Your task to perform on an android device: Open Google Chrome and open the bookmarks view Image 0: 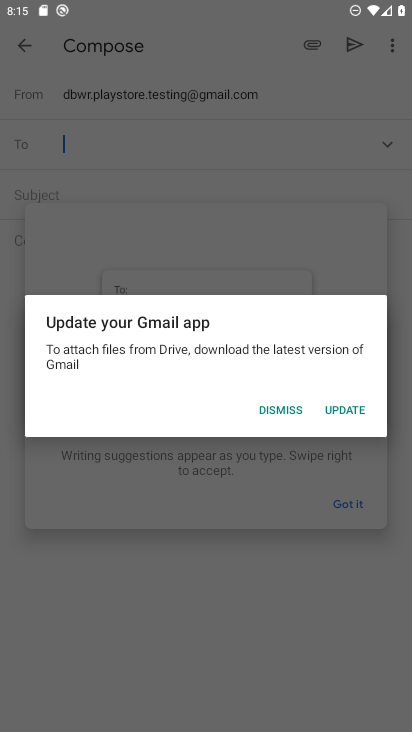
Step 0: press home button
Your task to perform on an android device: Open Google Chrome and open the bookmarks view Image 1: 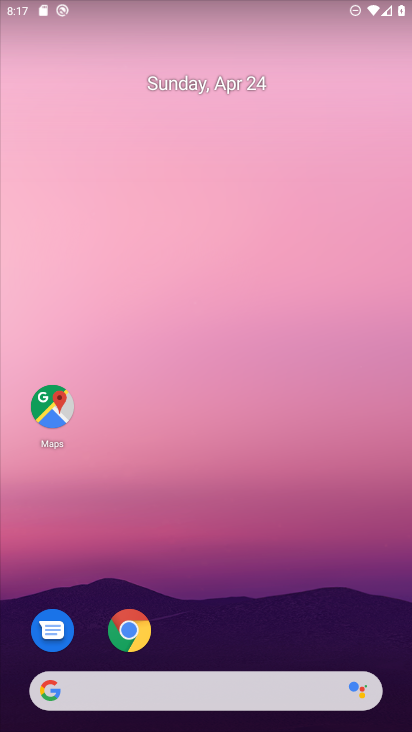
Step 1: click (130, 629)
Your task to perform on an android device: Open Google Chrome and open the bookmarks view Image 2: 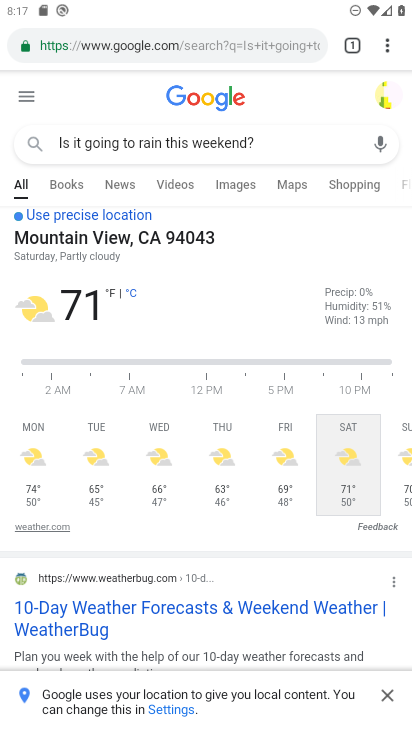
Step 2: task complete